Your task to perform on an android device: Set the phone to "Do not disturb". Image 0: 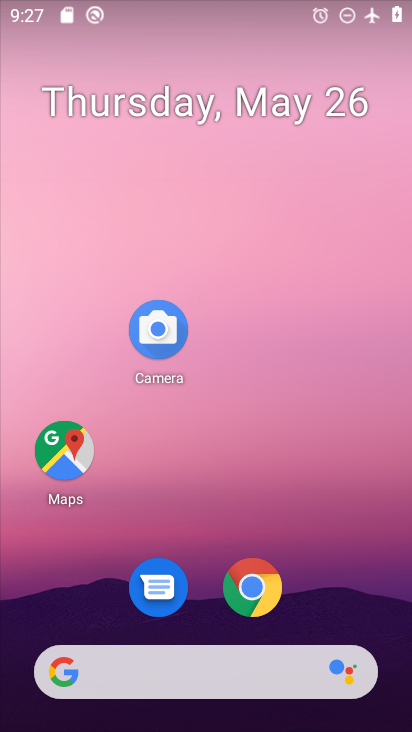
Step 0: drag from (219, 629) to (228, 211)
Your task to perform on an android device: Set the phone to "Do not disturb". Image 1: 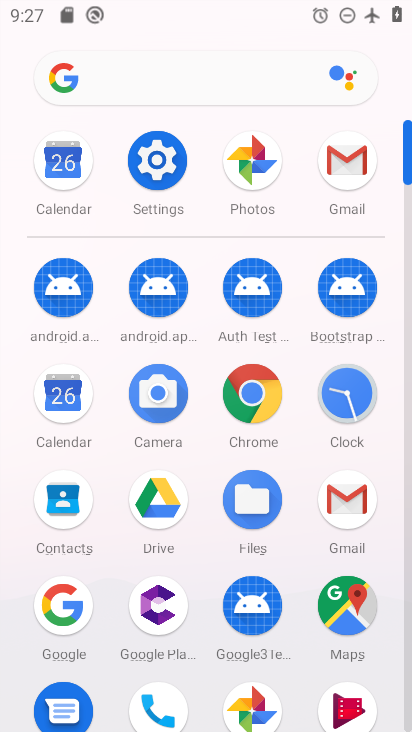
Step 1: click (159, 151)
Your task to perform on an android device: Set the phone to "Do not disturb". Image 2: 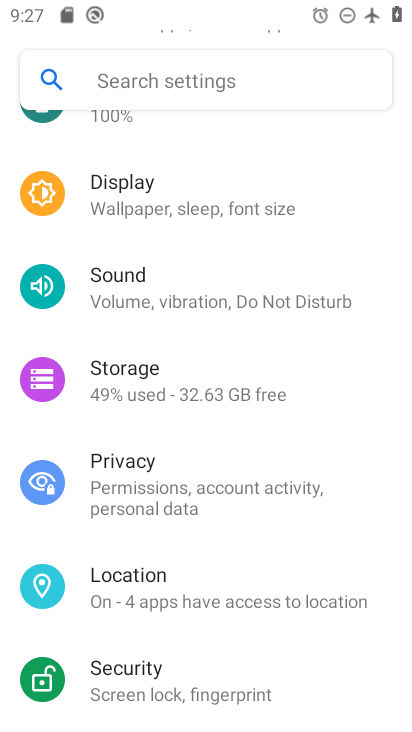
Step 2: click (157, 304)
Your task to perform on an android device: Set the phone to "Do not disturb". Image 3: 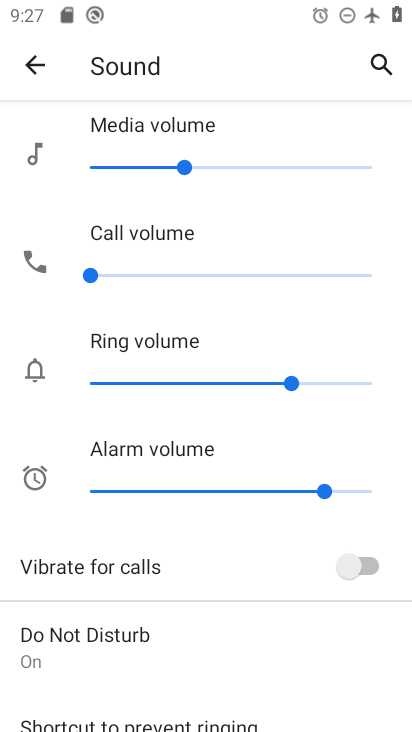
Step 3: click (198, 661)
Your task to perform on an android device: Set the phone to "Do not disturb". Image 4: 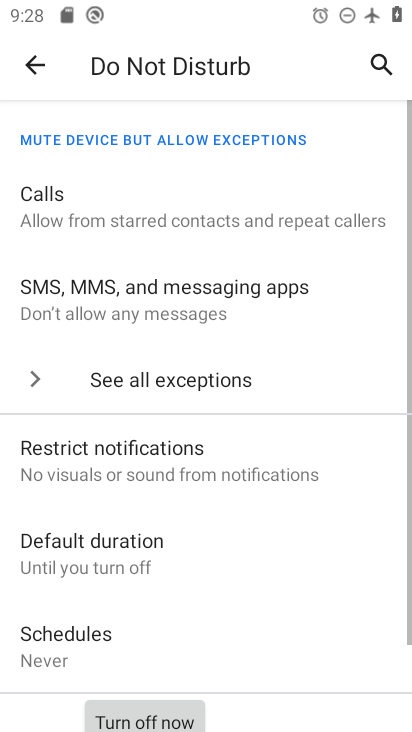
Step 4: task complete